Your task to perform on an android device: set the timer Image 0: 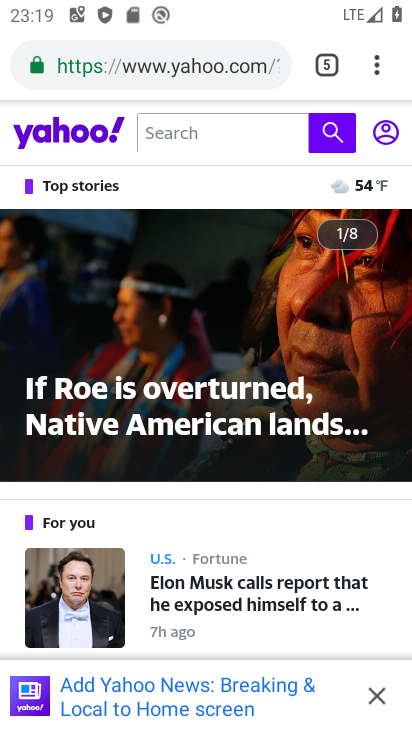
Step 0: press home button
Your task to perform on an android device: set the timer Image 1: 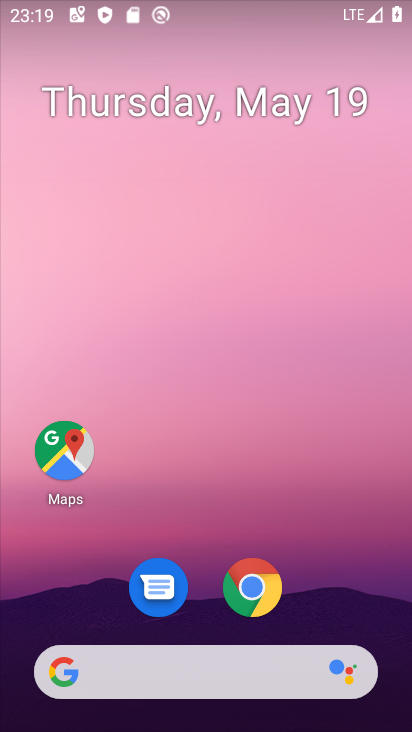
Step 1: drag from (218, 589) to (250, 285)
Your task to perform on an android device: set the timer Image 2: 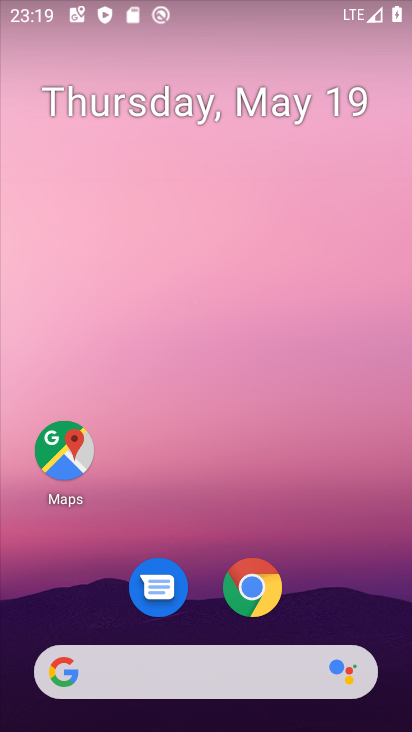
Step 2: drag from (221, 686) to (326, 319)
Your task to perform on an android device: set the timer Image 3: 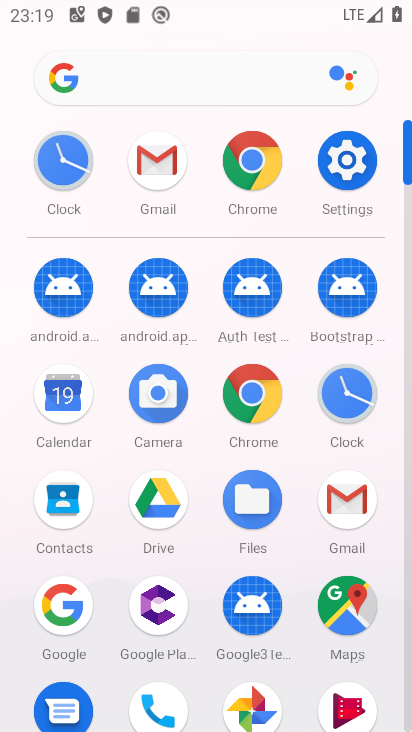
Step 3: click (336, 388)
Your task to perform on an android device: set the timer Image 4: 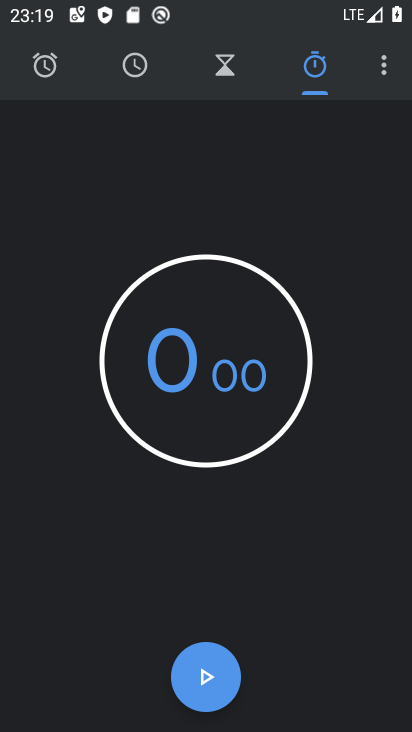
Step 4: click (373, 85)
Your task to perform on an android device: set the timer Image 5: 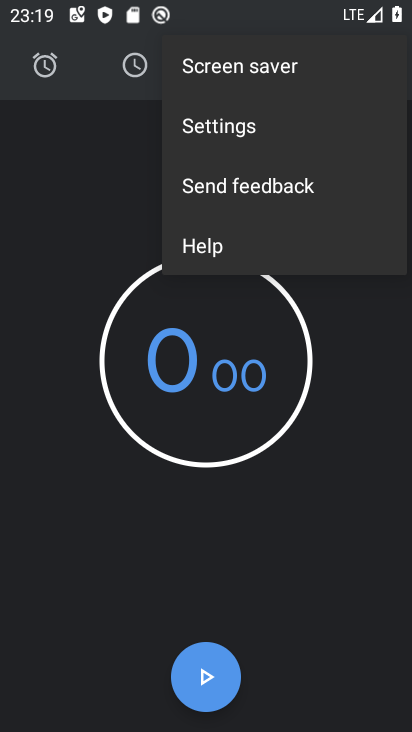
Step 5: click (203, 136)
Your task to perform on an android device: set the timer Image 6: 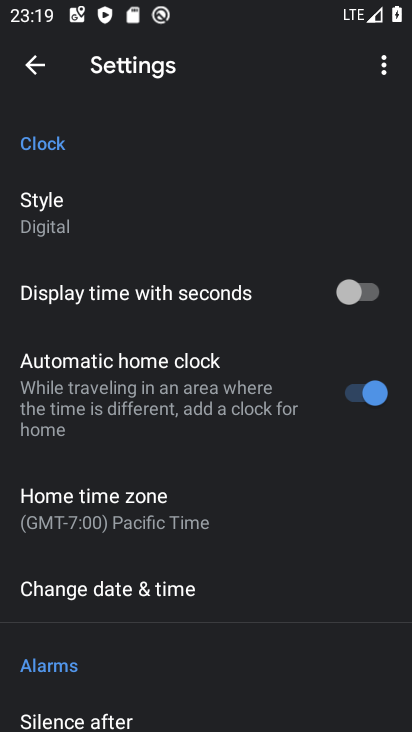
Step 6: drag from (167, 521) to (191, 198)
Your task to perform on an android device: set the timer Image 7: 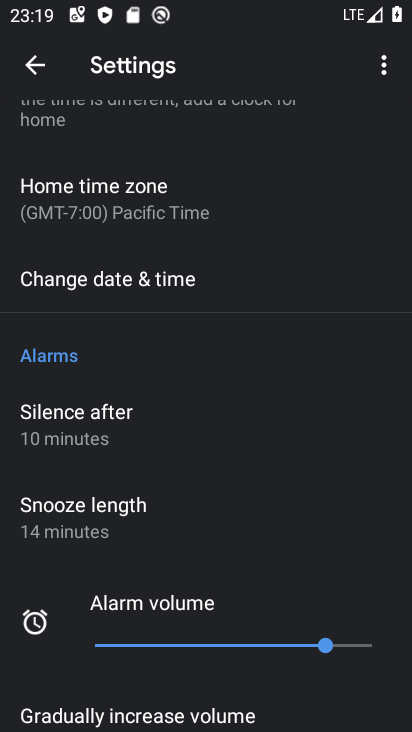
Step 7: drag from (181, 604) to (175, 318)
Your task to perform on an android device: set the timer Image 8: 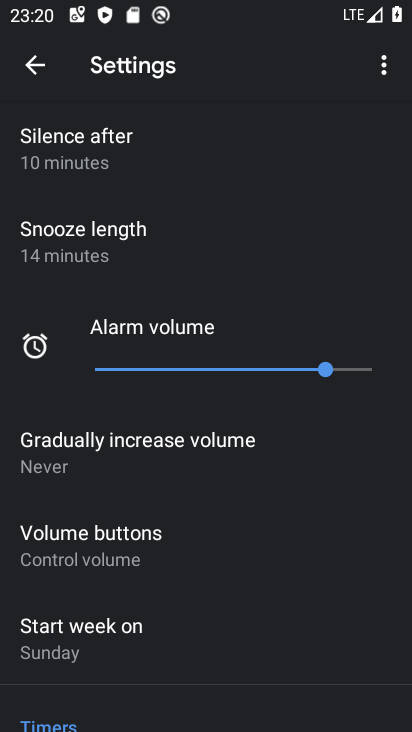
Step 8: click (26, 66)
Your task to perform on an android device: set the timer Image 9: 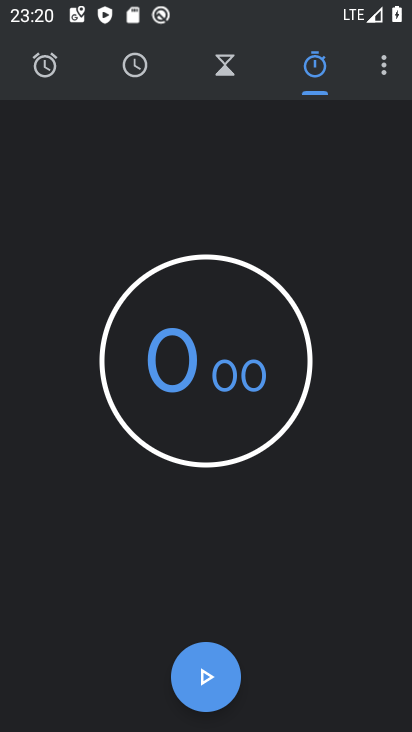
Step 9: click (217, 78)
Your task to perform on an android device: set the timer Image 10: 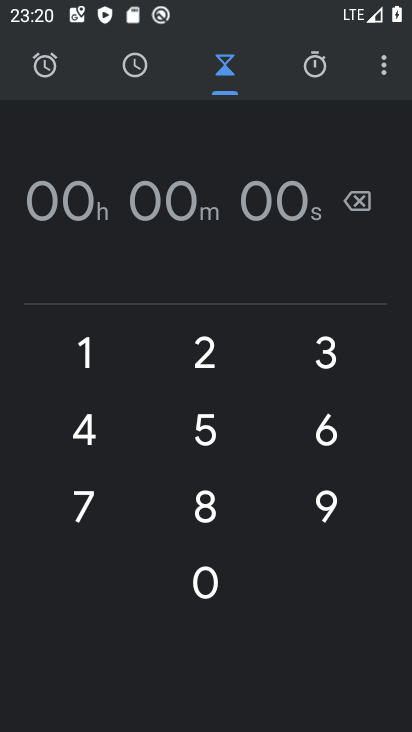
Step 10: click (223, 442)
Your task to perform on an android device: set the timer Image 11: 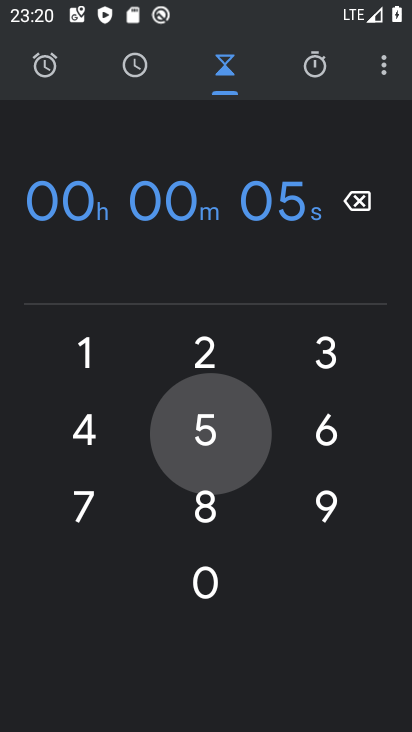
Step 11: click (88, 438)
Your task to perform on an android device: set the timer Image 12: 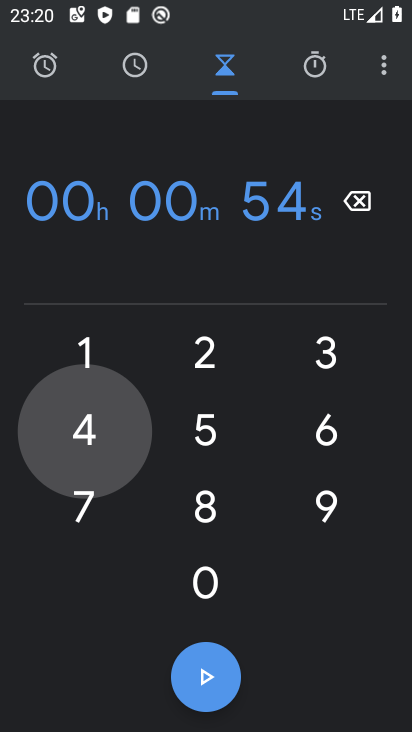
Step 12: click (89, 508)
Your task to perform on an android device: set the timer Image 13: 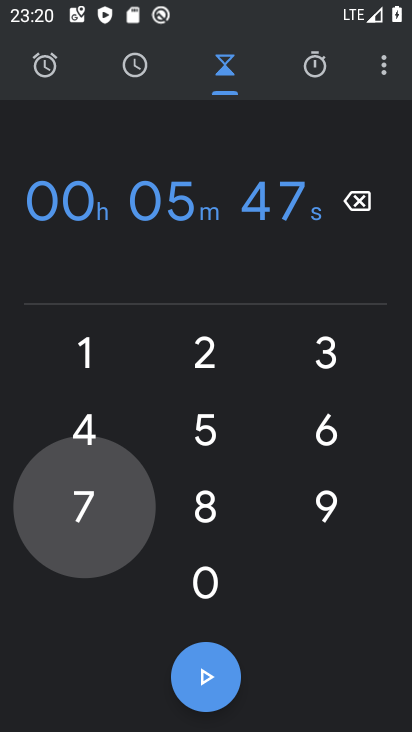
Step 13: click (234, 512)
Your task to perform on an android device: set the timer Image 14: 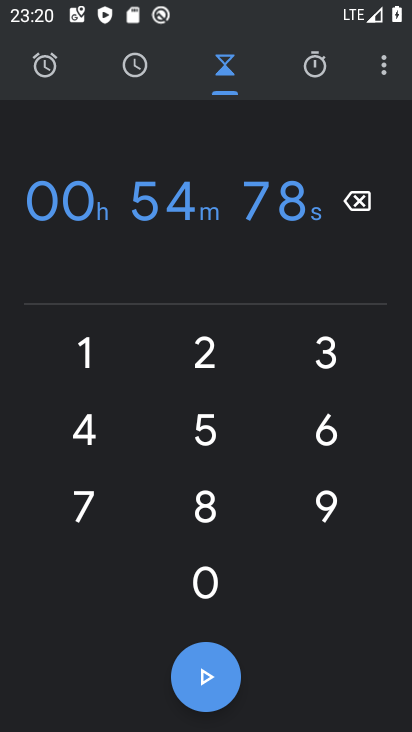
Step 14: click (328, 343)
Your task to perform on an android device: set the timer Image 15: 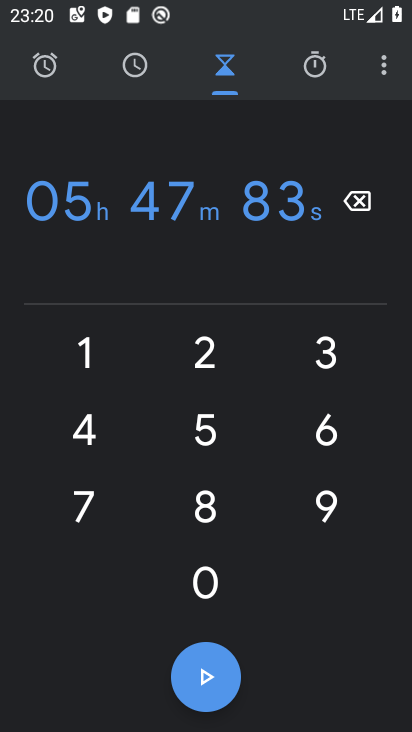
Step 15: task complete